Your task to perform on an android device: turn off smart reply in the gmail app Image 0: 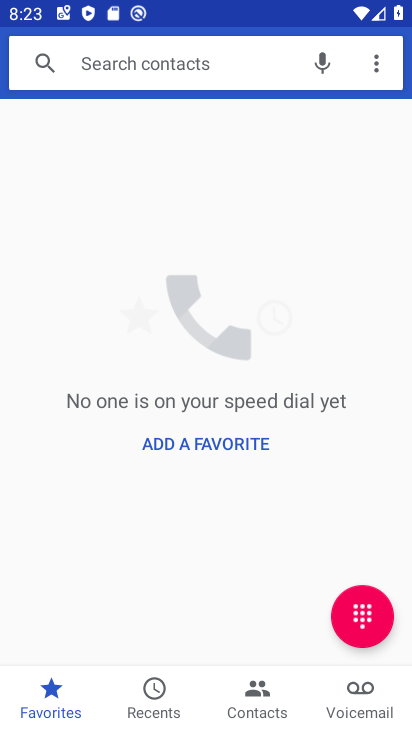
Step 0: press home button
Your task to perform on an android device: turn off smart reply in the gmail app Image 1: 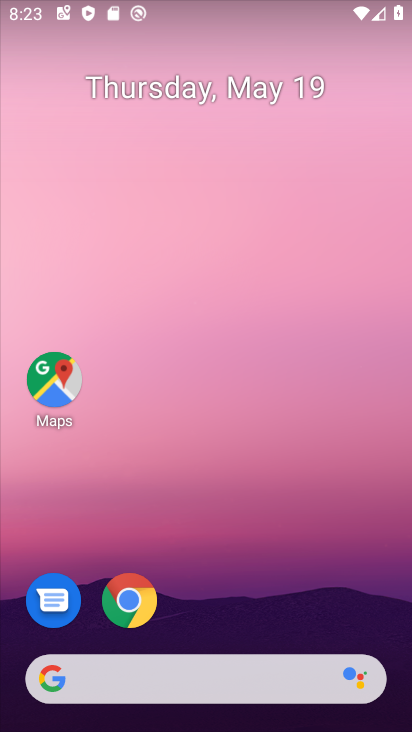
Step 1: drag from (207, 616) to (213, 37)
Your task to perform on an android device: turn off smart reply in the gmail app Image 2: 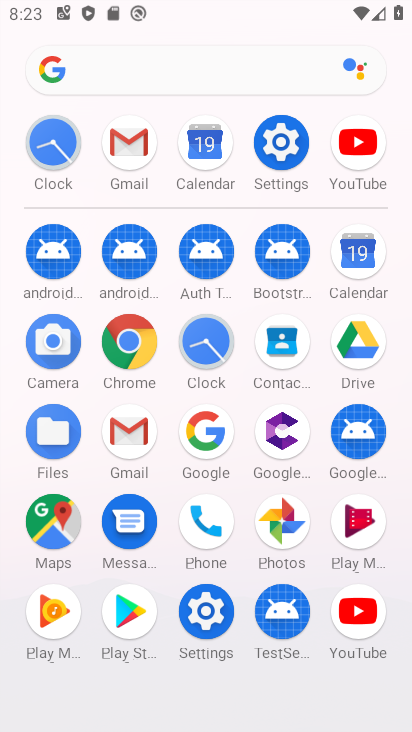
Step 2: click (144, 140)
Your task to perform on an android device: turn off smart reply in the gmail app Image 3: 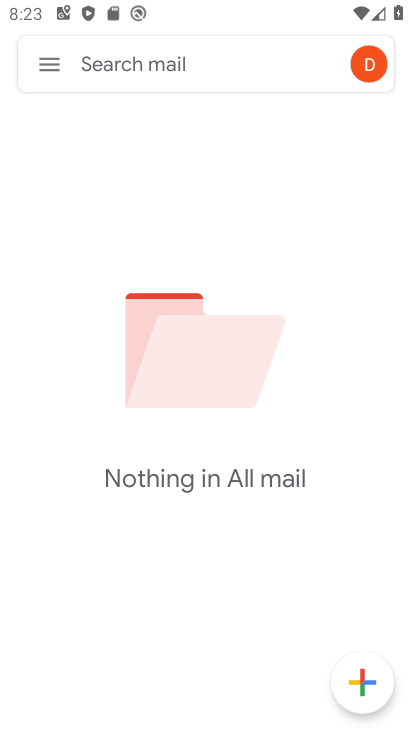
Step 3: click (47, 71)
Your task to perform on an android device: turn off smart reply in the gmail app Image 4: 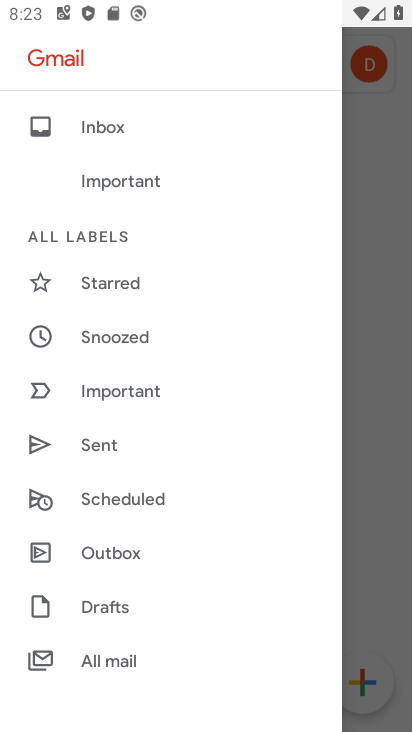
Step 4: drag from (143, 631) to (143, 363)
Your task to perform on an android device: turn off smart reply in the gmail app Image 5: 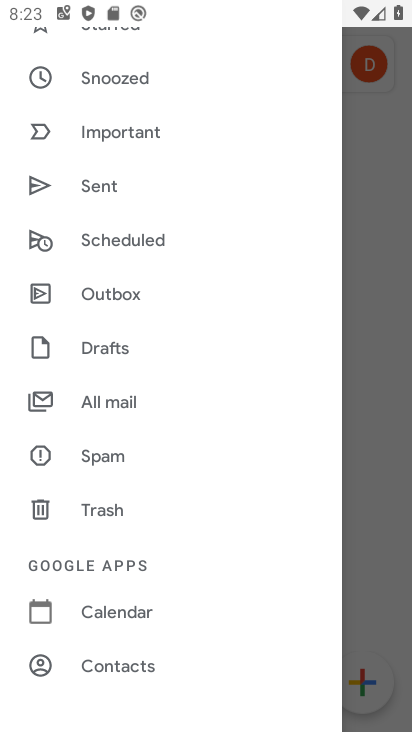
Step 5: drag from (162, 629) to (181, 265)
Your task to perform on an android device: turn off smart reply in the gmail app Image 6: 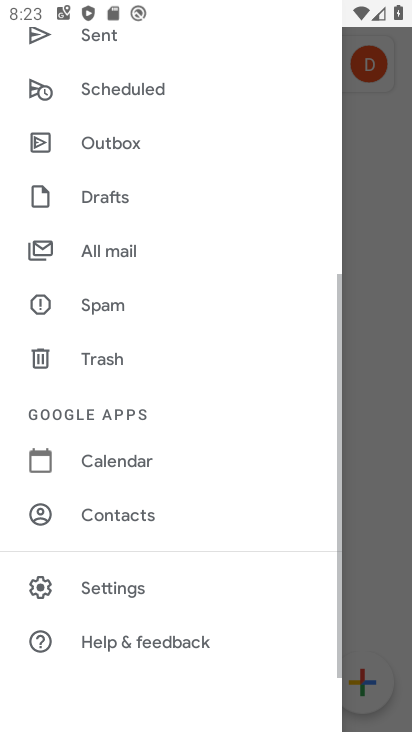
Step 6: click (100, 589)
Your task to perform on an android device: turn off smart reply in the gmail app Image 7: 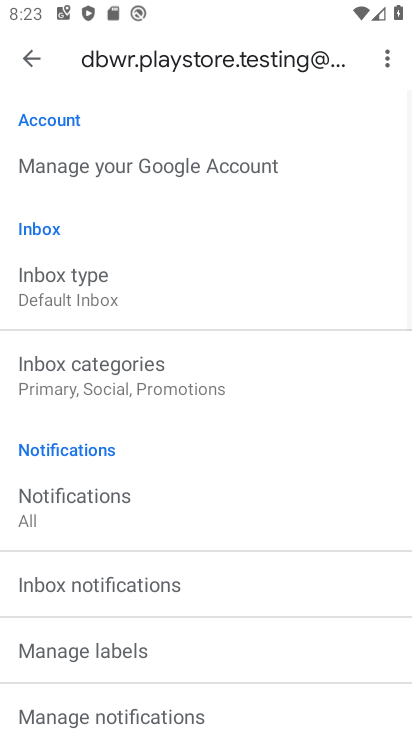
Step 7: drag from (164, 582) to (169, 65)
Your task to perform on an android device: turn off smart reply in the gmail app Image 8: 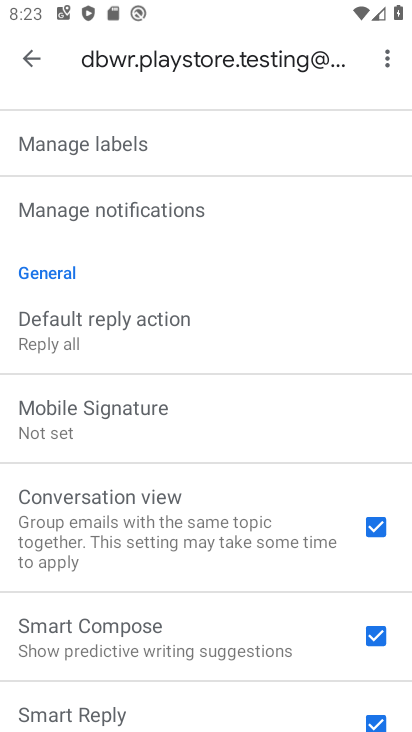
Step 8: drag from (181, 587) to (171, 258)
Your task to perform on an android device: turn off smart reply in the gmail app Image 9: 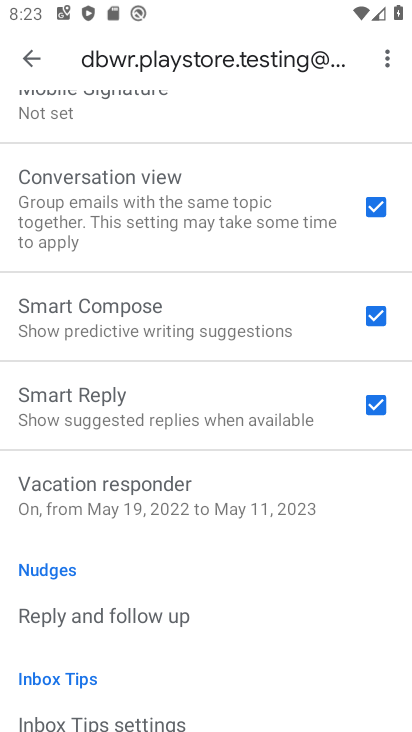
Step 9: click (365, 400)
Your task to perform on an android device: turn off smart reply in the gmail app Image 10: 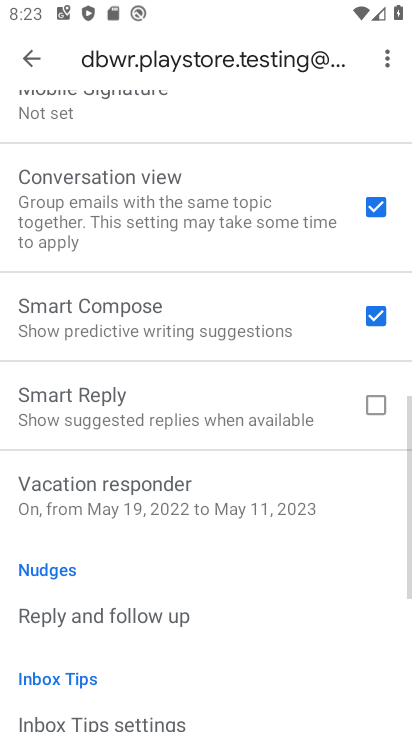
Step 10: task complete